Your task to perform on an android device: Go to CNN.com Image 0: 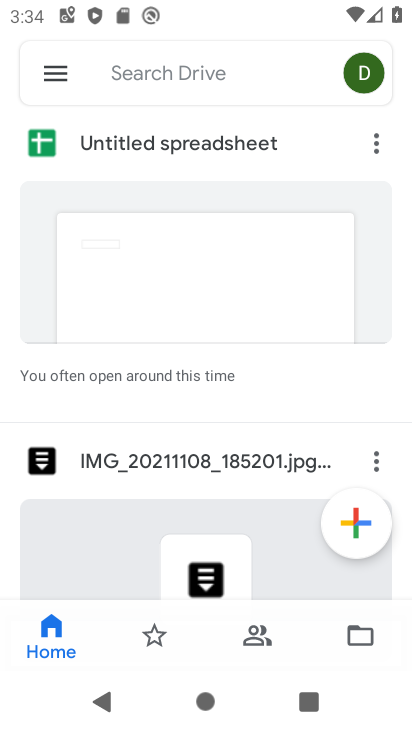
Step 0: press home button
Your task to perform on an android device: Go to CNN.com Image 1: 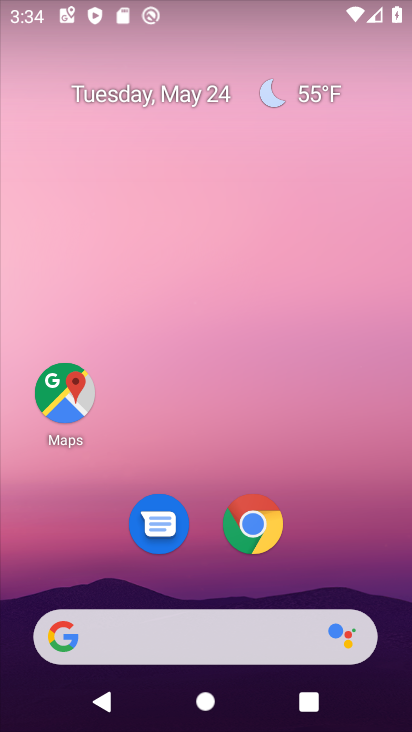
Step 1: click (269, 635)
Your task to perform on an android device: Go to CNN.com Image 2: 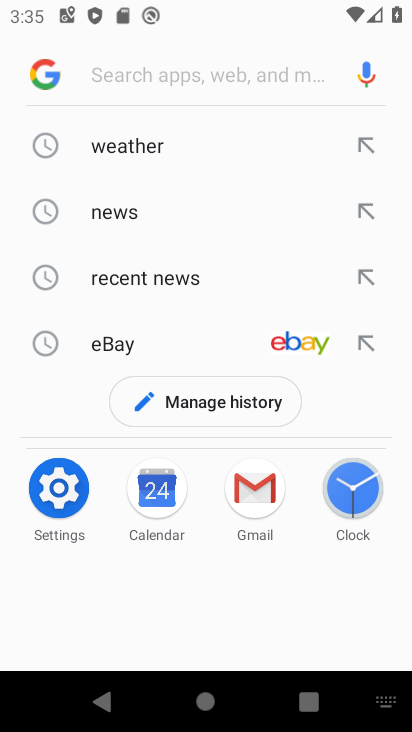
Step 2: type "cnn.com"
Your task to perform on an android device: Go to CNN.com Image 3: 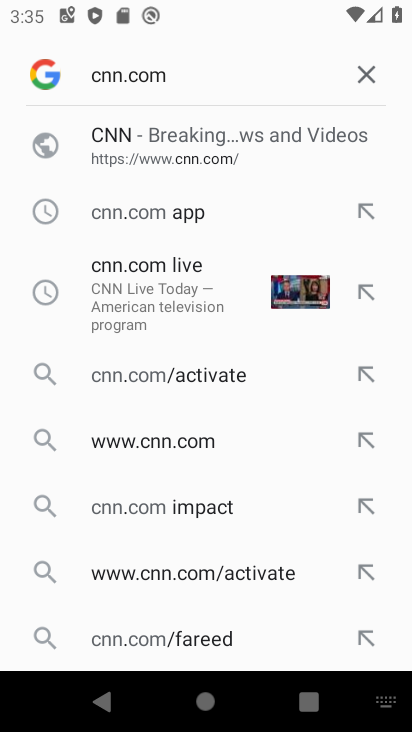
Step 3: click (177, 149)
Your task to perform on an android device: Go to CNN.com Image 4: 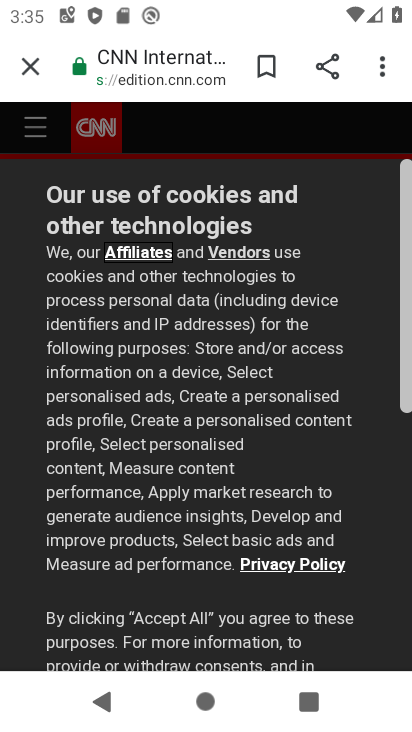
Step 4: task complete